Your task to perform on an android device: What's the weather? Image 0: 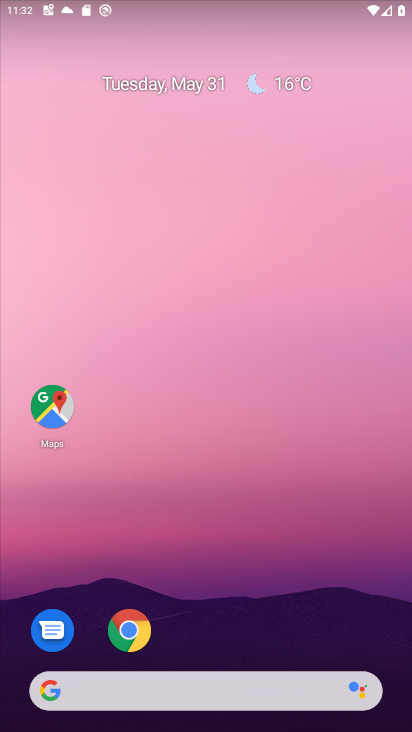
Step 0: click (286, 86)
Your task to perform on an android device: What's the weather? Image 1: 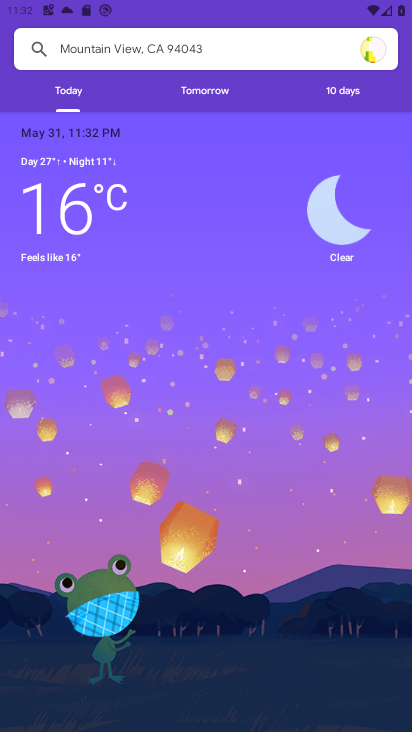
Step 1: task complete